Your task to perform on an android device: Open accessibility settings Image 0: 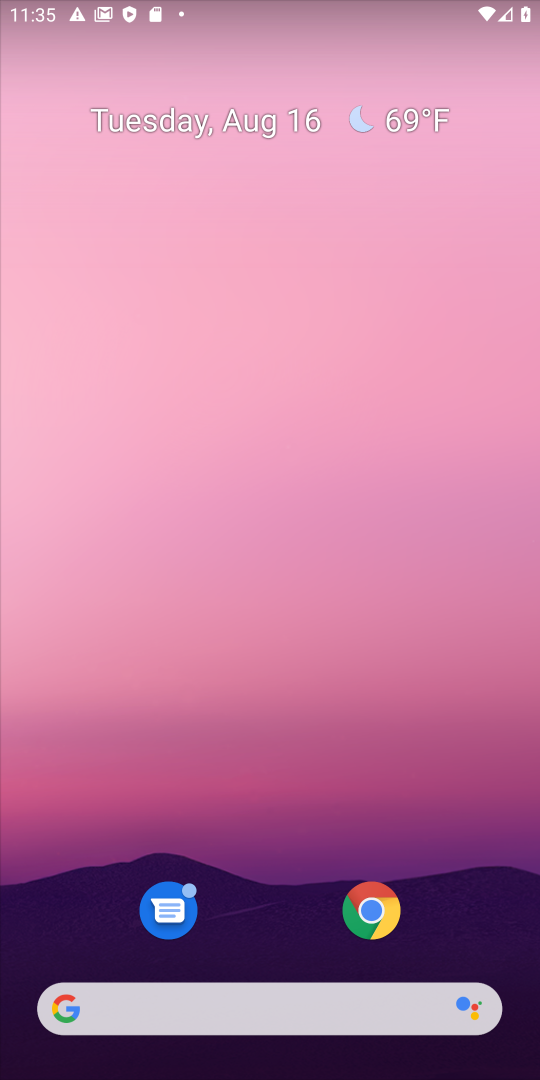
Step 0: drag from (261, 918) to (354, 124)
Your task to perform on an android device: Open accessibility settings Image 1: 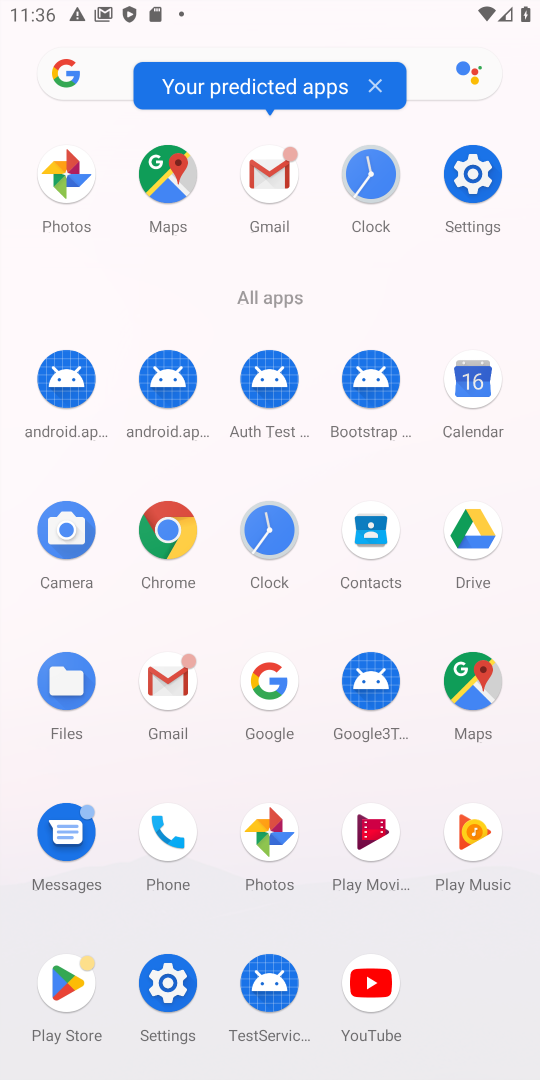
Step 1: click (164, 981)
Your task to perform on an android device: Open accessibility settings Image 2: 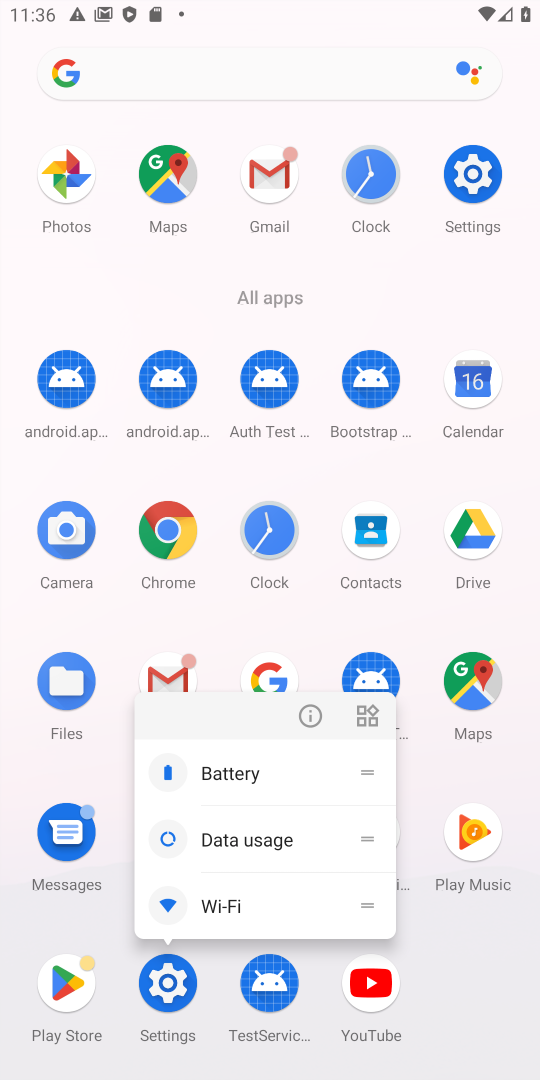
Step 2: click (164, 981)
Your task to perform on an android device: Open accessibility settings Image 3: 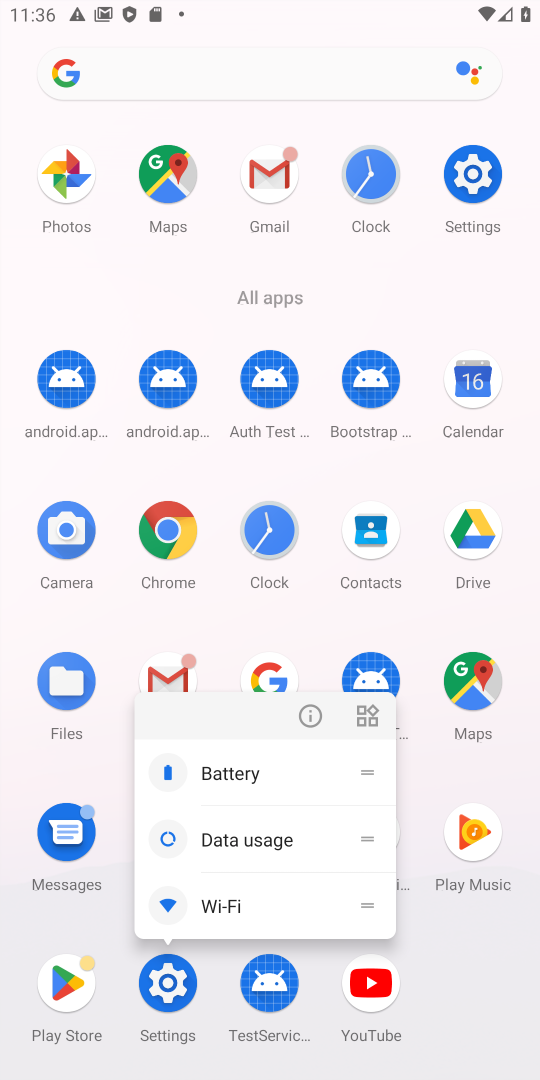
Step 3: click (173, 983)
Your task to perform on an android device: Open accessibility settings Image 4: 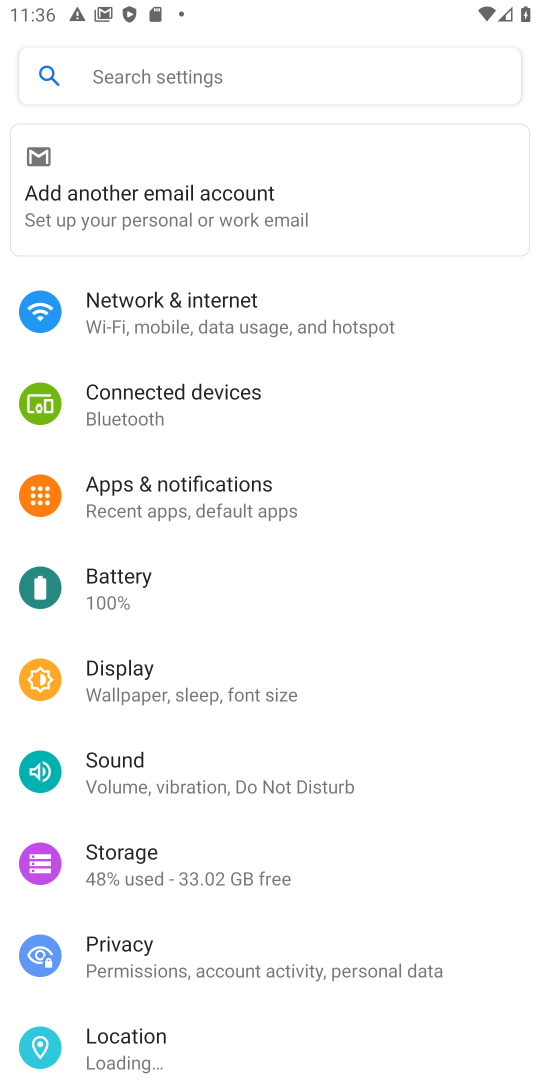
Step 4: drag from (381, 924) to (469, 342)
Your task to perform on an android device: Open accessibility settings Image 5: 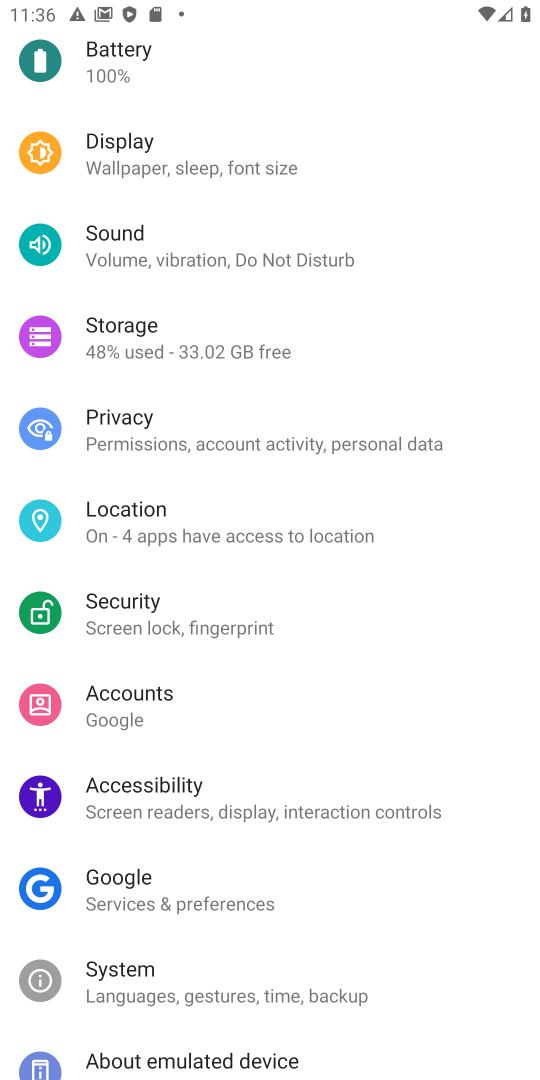
Step 5: click (177, 815)
Your task to perform on an android device: Open accessibility settings Image 6: 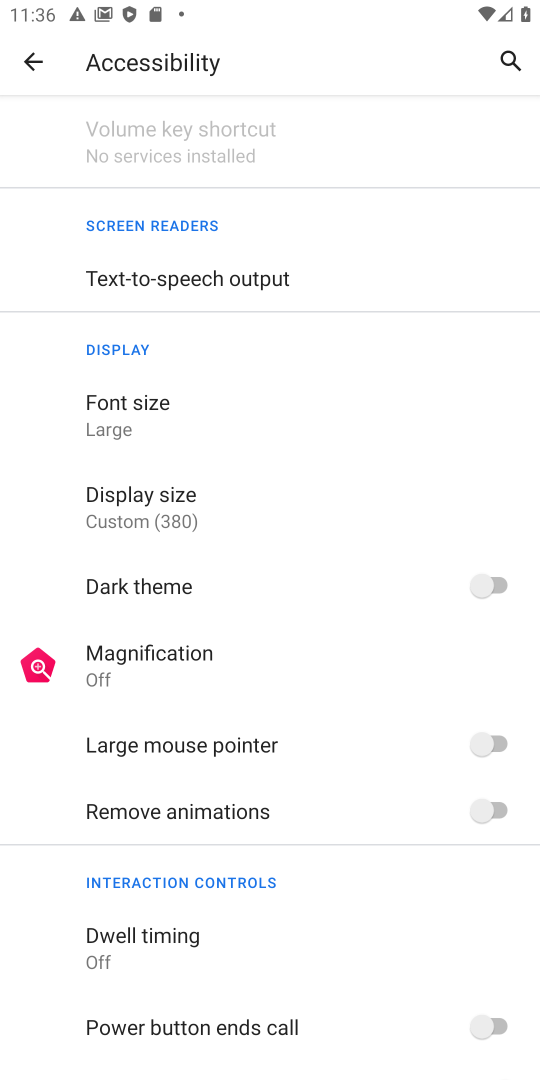
Step 6: task complete